Your task to perform on an android device: remove spam from my inbox in the gmail app Image 0: 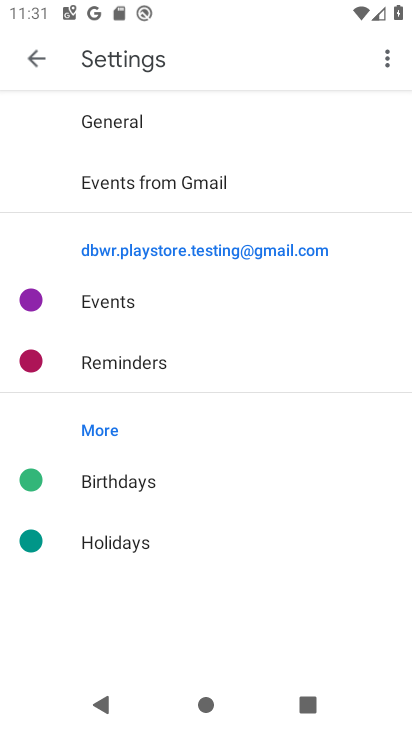
Step 0: press home button
Your task to perform on an android device: remove spam from my inbox in the gmail app Image 1: 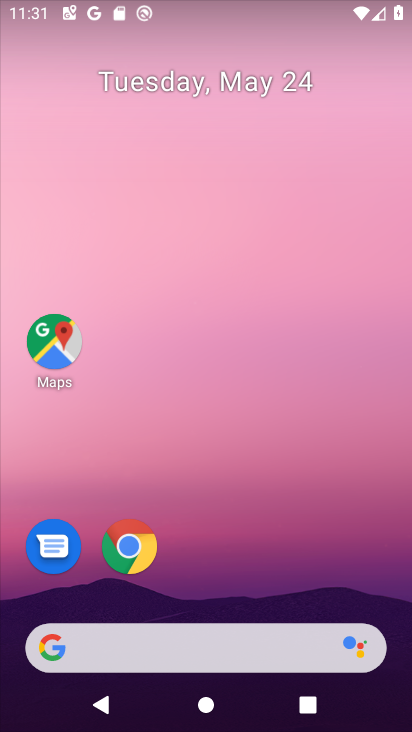
Step 1: drag from (197, 577) to (347, 13)
Your task to perform on an android device: remove spam from my inbox in the gmail app Image 2: 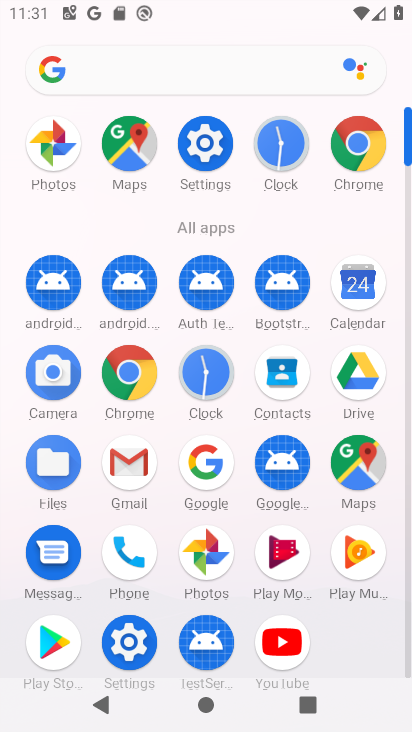
Step 2: click (130, 470)
Your task to perform on an android device: remove spam from my inbox in the gmail app Image 3: 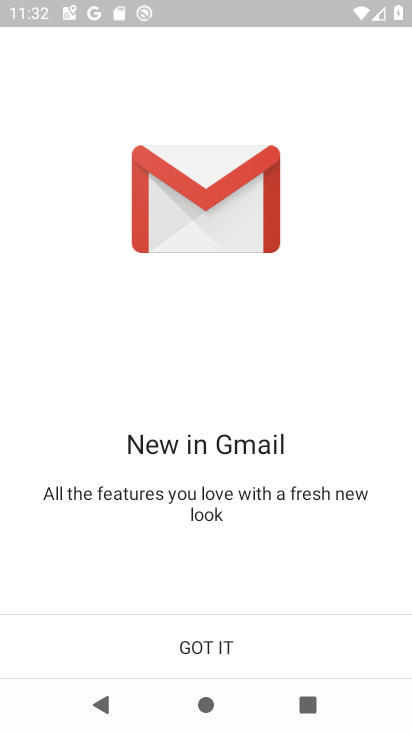
Step 3: click (248, 654)
Your task to perform on an android device: remove spam from my inbox in the gmail app Image 4: 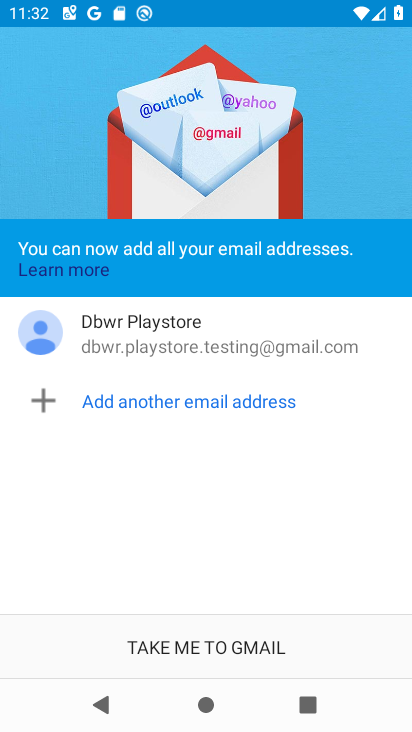
Step 4: click (233, 646)
Your task to perform on an android device: remove spam from my inbox in the gmail app Image 5: 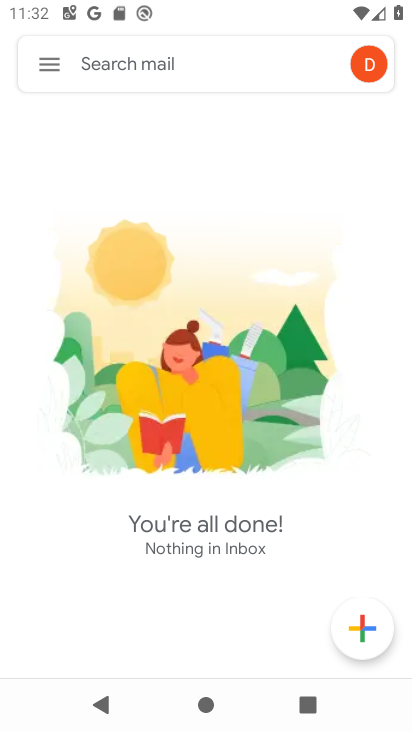
Step 5: click (49, 63)
Your task to perform on an android device: remove spam from my inbox in the gmail app Image 6: 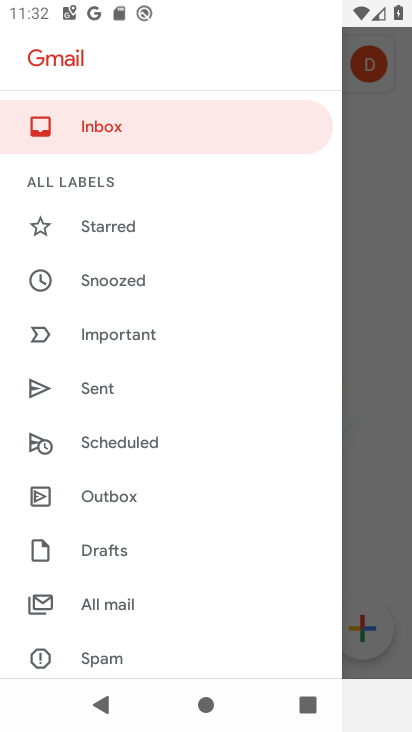
Step 6: click (101, 644)
Your task to perform on an android device: remove spam from my inbox in the gmail app Image 7: 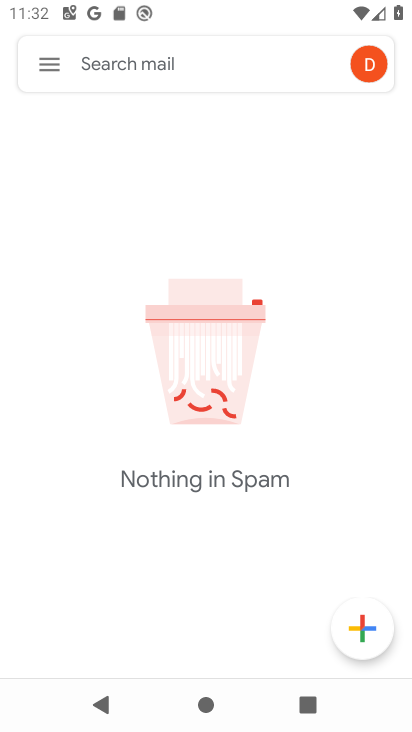
Step 7: task complete